Your task to perform on an android device: Open accessibility settings Image 0: 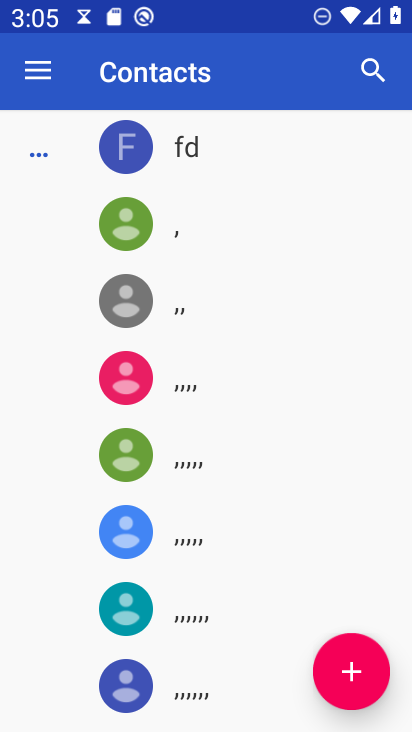
Step 0: press back button
Your task to perform on an android device: Open accessibility settings Image 1: 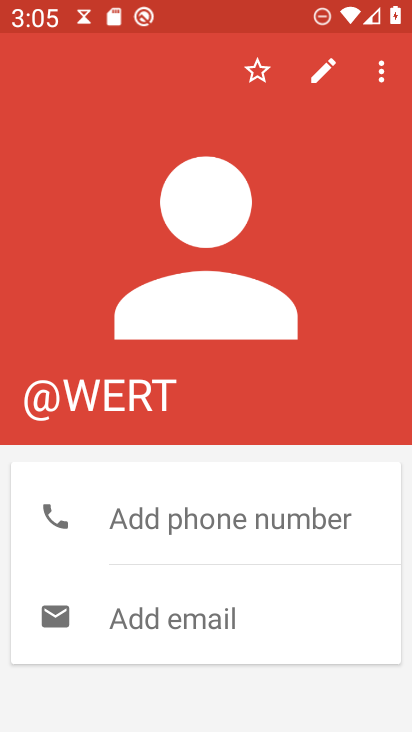
Step 1: press home button
Your task to perform on an android device: Open accessibility settings Image 2: 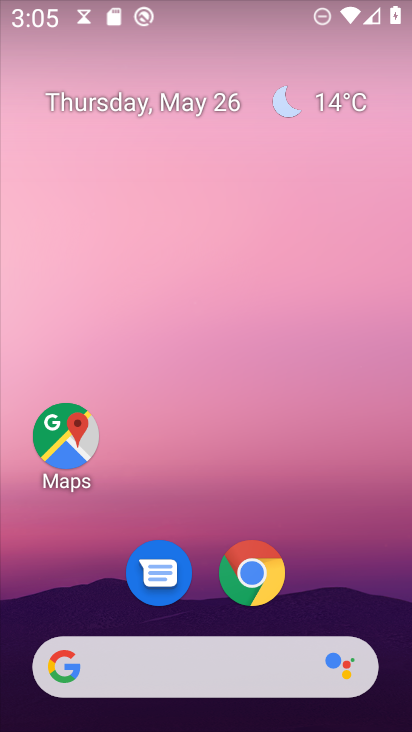
Step 2: drag from (324, 559) to (265, 24)
Your task to perform on an android device: Open accessibility settings Image 3: 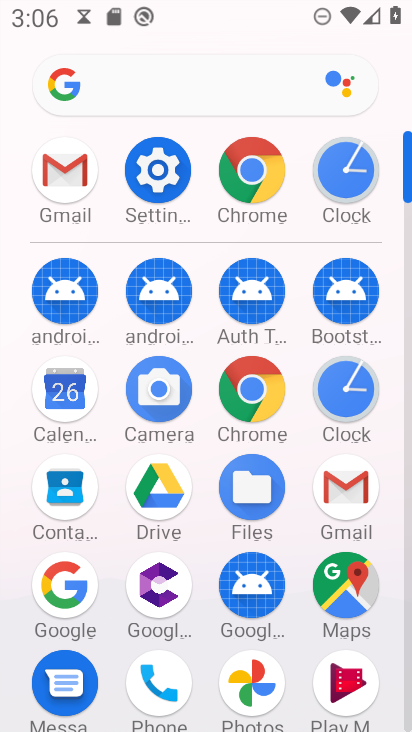
Step 3: drag from (7, 590) to (19, 235)
Your task to perform on an android device: Open accessibility settings Image 4: 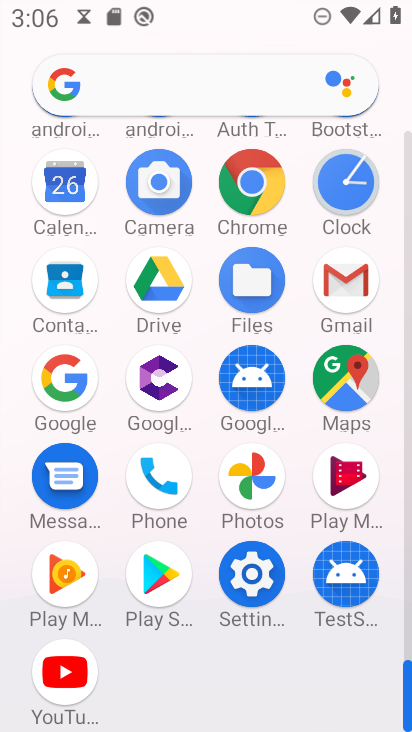
Step 4: click (253, 571)
Your task to perform on an android device: Open accessibility settings Image 5: 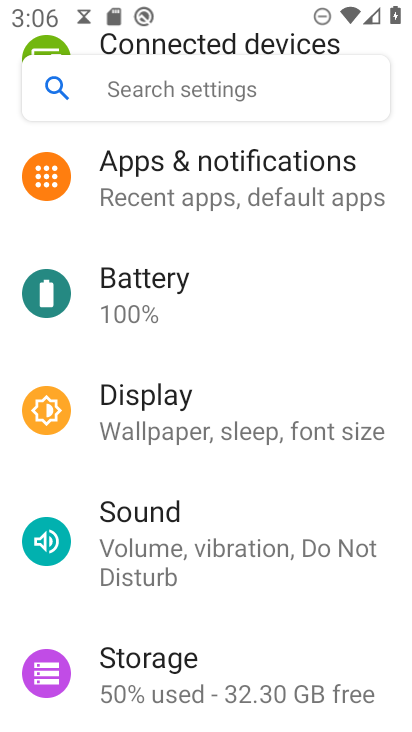
Step 5: drag from (266, 601) to (270, 199)
Your task to perform on an android device: Open accessibility settings Image 6: 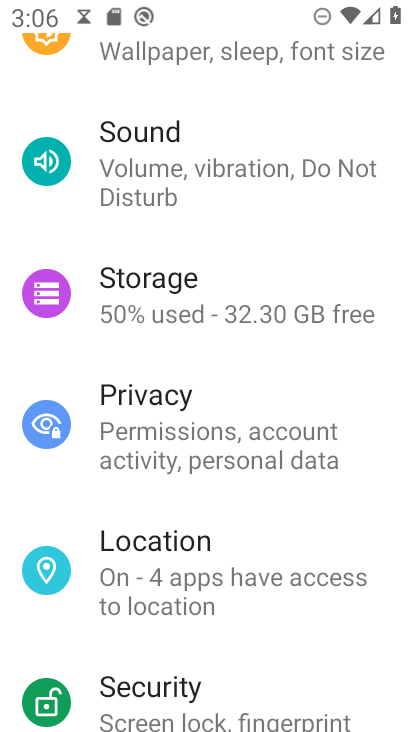
Step 6: drag from (272, 601) to (280, 173)
Your task to perform on an android device: Open accessibility settings Image 7: 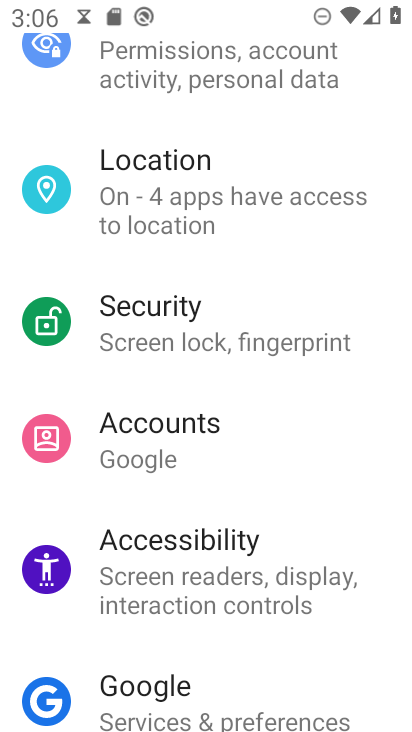
Step 7: drag from (272, 584) to (266, 248)
Your task to perform on an android device: Open accessibility settings Image 8: 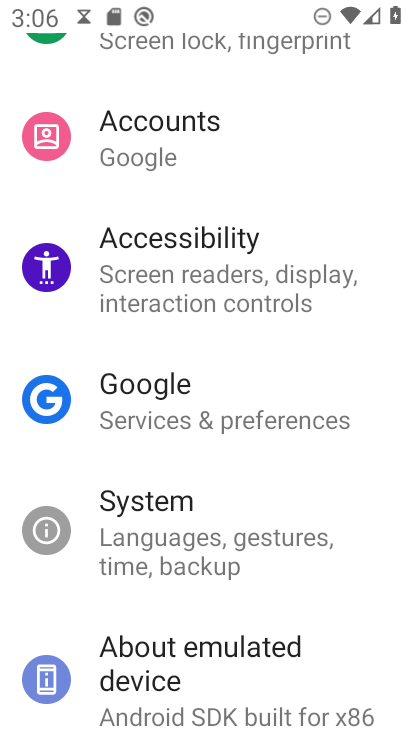
Step 8: click (203, 277)
Your task to perform on an android device: Open accessibility settings Image 9: 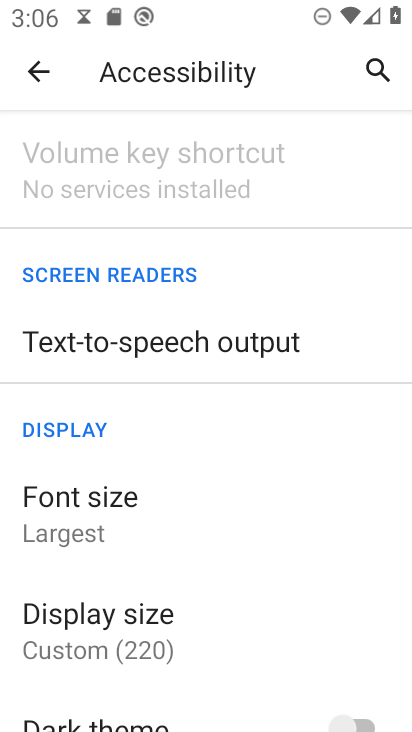
Step 9: task complete